Your task to perform on an android device: Go to settings Image 0: 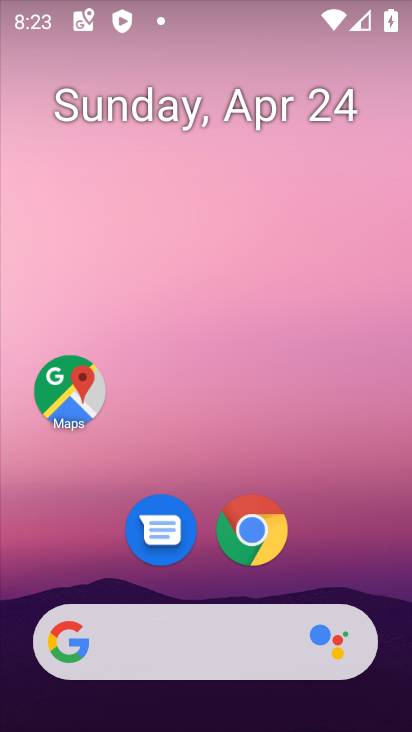
Step 0: drag from (212, 584) to (180, 31)
Your task to perform on an android device: Go to settings Image 1: 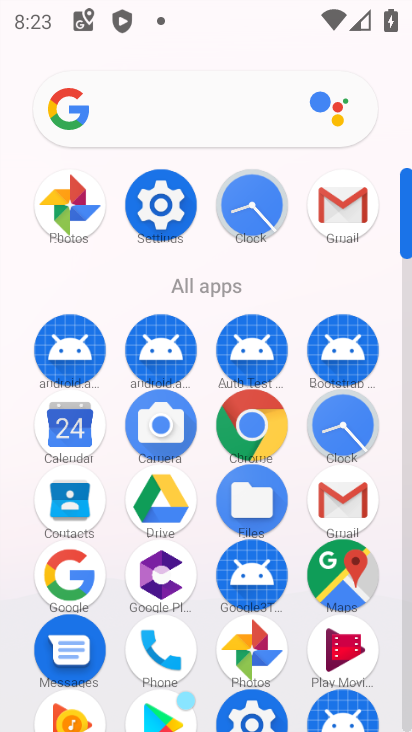
Step 1: click (151, 179)
Your task to perform on an android device: Go to settings Image 2: 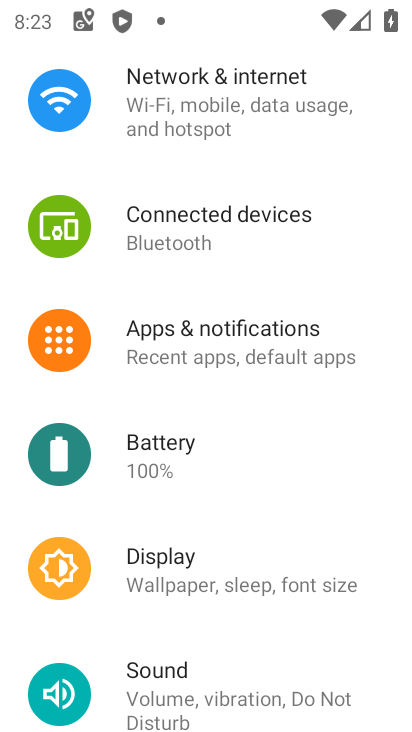
Step 2: task complete